Your task to perform on an android device: Open Google Image 0: 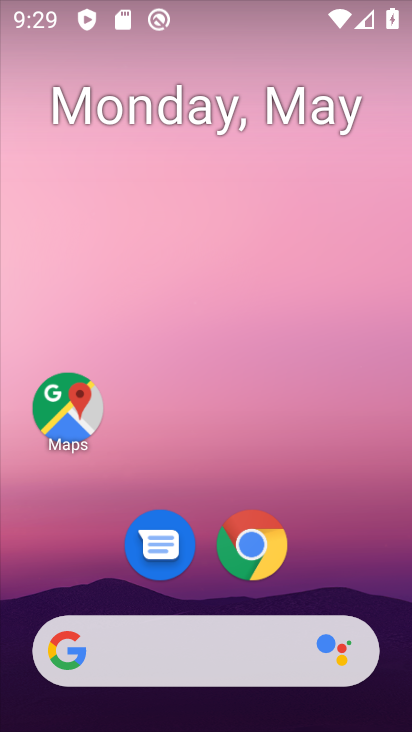
Step 0: drag from (349, 549) to (411, 109)
Your task to perform on an android device: Open Google Image 1: 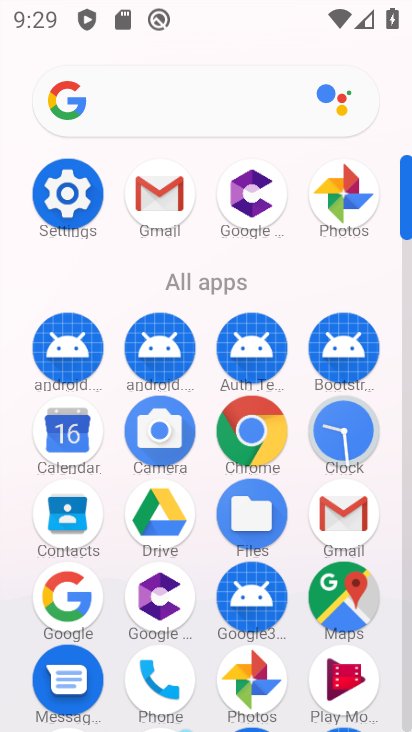
Step 1: click (78, 602)
Your task to perform on an android device: Open Google Image 2: 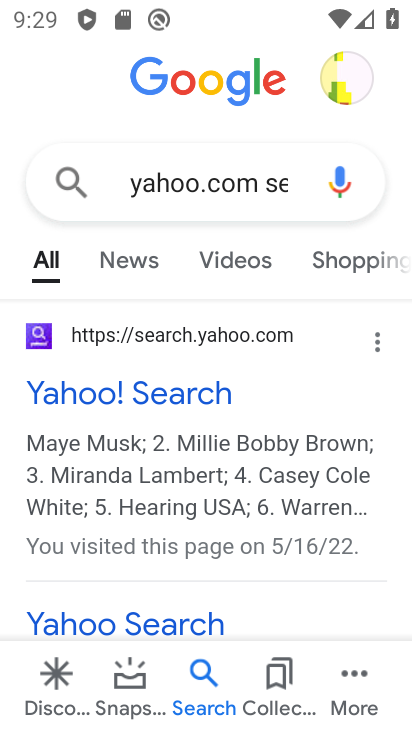
Step 2: task complete